Your task to perform on an android device: set the timer Image 0: 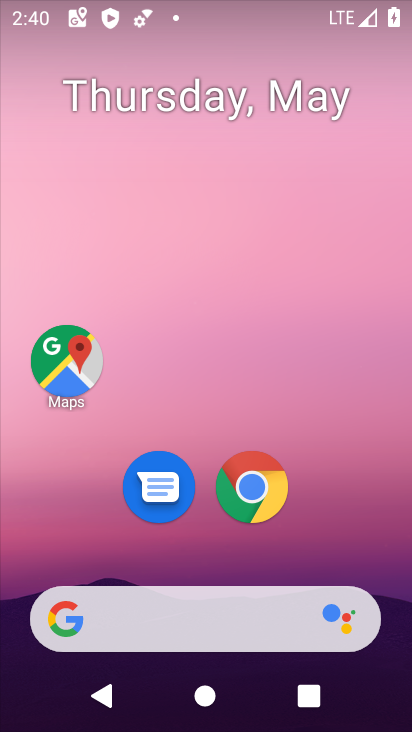
Step 0: drag from (191, 565) to (260, 205)
Your task to perform on an android device: set the timer Image 1: 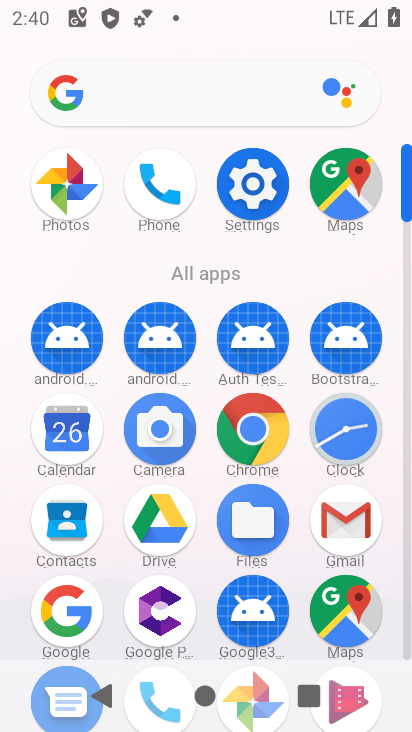
Step 1: drag from (224, 481) to (272, 242)
Your task to perform on an android device: set the timer Image 2: 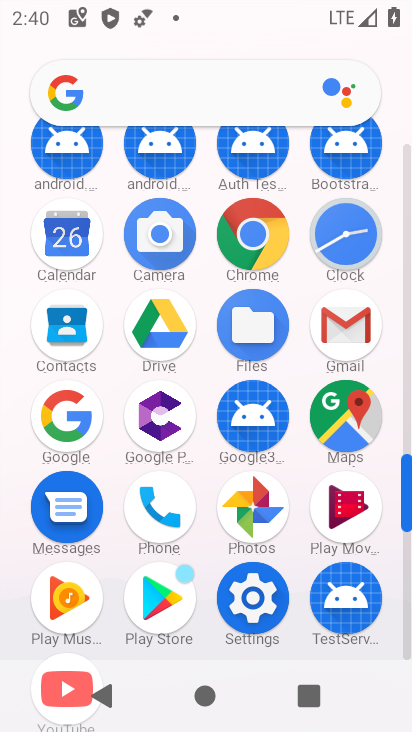
Step 2: click (344, 241)
Your task to perform on an android device: set the timer Image 3: 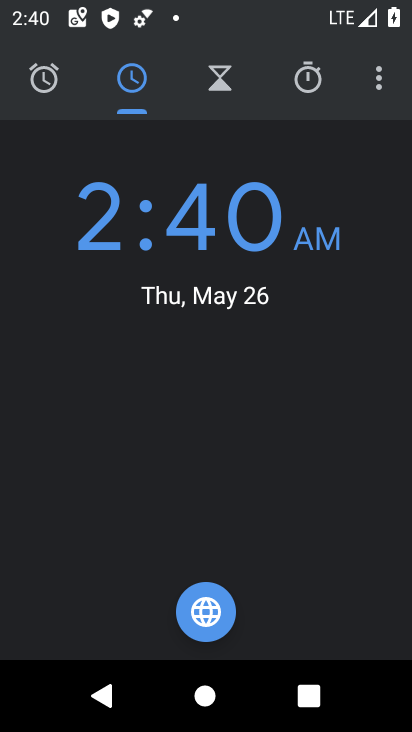
Step 3: click (311, 83)
Your task to perform on an android device: set the timer Image 4: 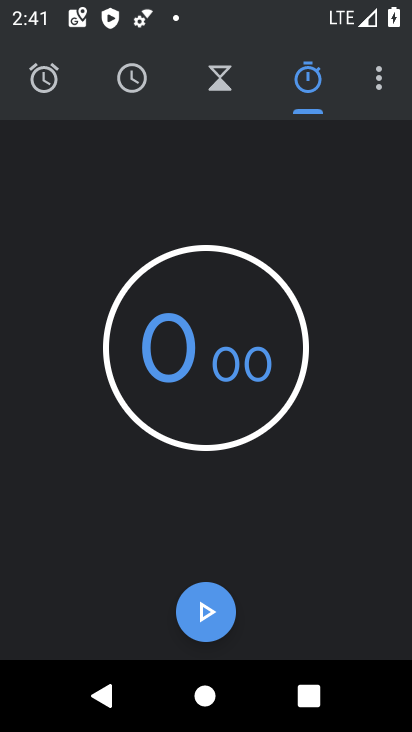
Step 4: click (219, 66)
Your task to perform on an android device: set the timer Image 5: 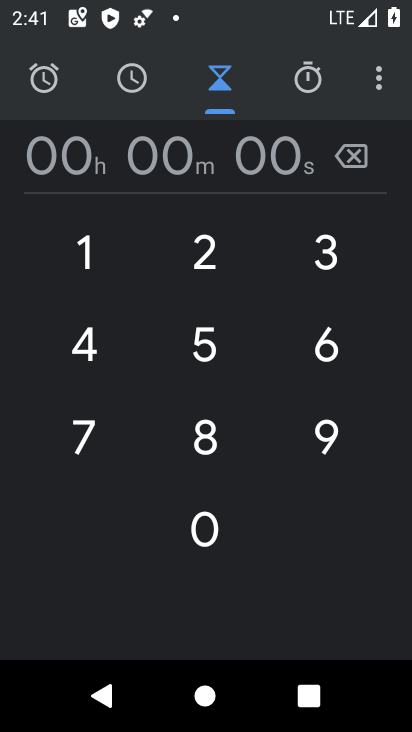
Step 5: click (205, 241)
Your task to perform on an android device: set the timer Image 6: 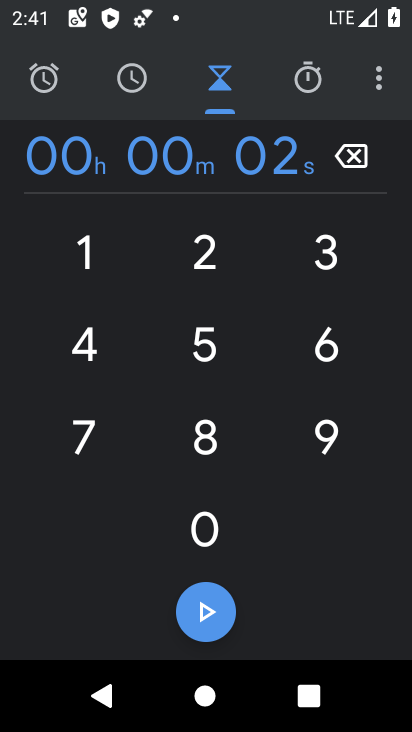
Step 6: click (220, 624)
Your task to perform on an android device: set the timer Image 7: 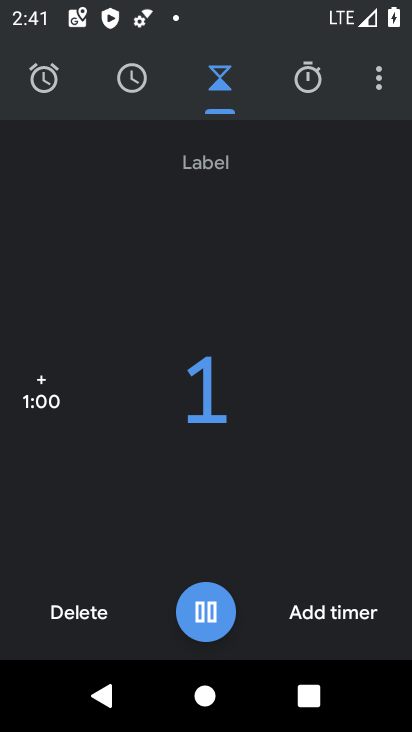
Step 7: task complete